Your task to perform on an android device: create a new album in the google photos Image 0: 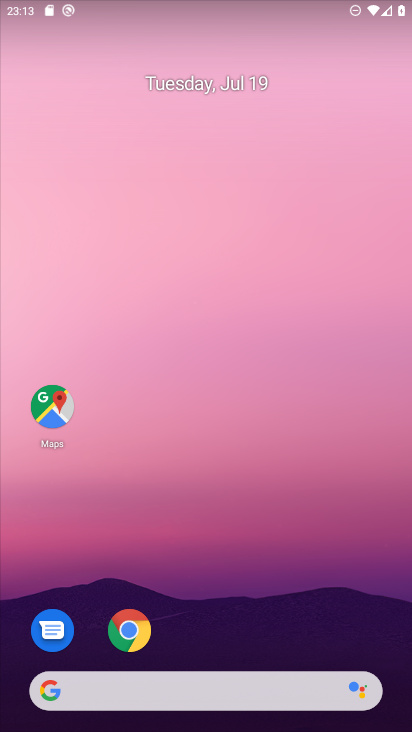
Step 0: drag from (184, 644) to (134, 168)
Your task to perform on an android device: create a new album in the google photos Image 1: 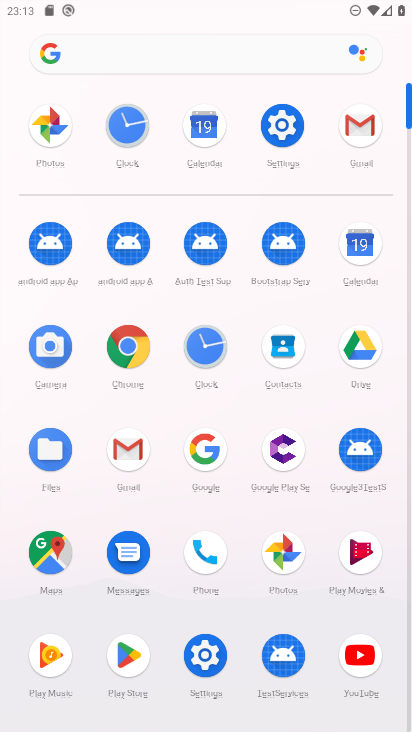
Step 1: click (54, 123)
Your task to perform on an android device: create a new album in the google photos Image 2: 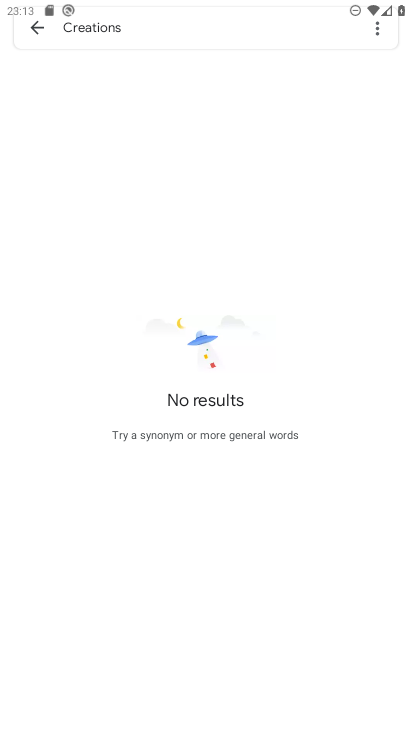
Step 2: click (30, 19)
Your task to perform on an android device: create a new album in the google photos Image 3: 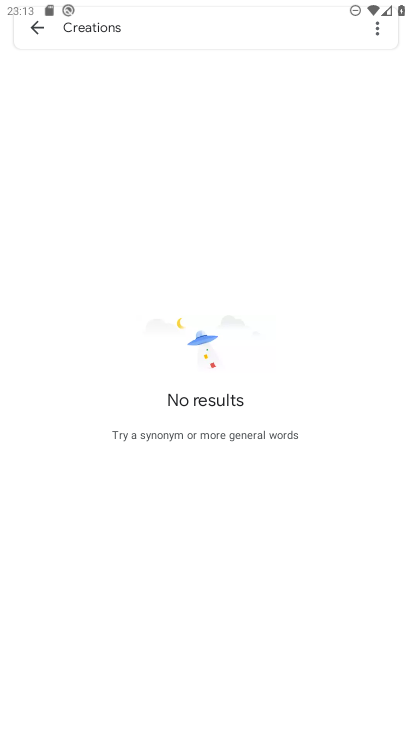
Step 3: click (31, 17)
Your task to perform on an android device: create a new album in the google photos Image 4: 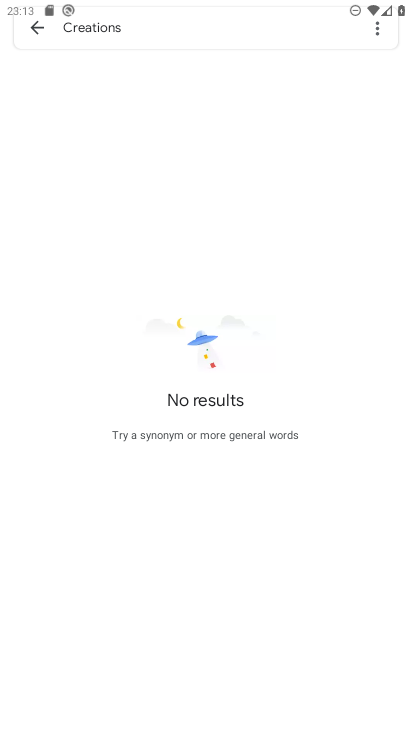
Step 4: click (33, 23)
Your task to perform on an android device: create a new album in the google photos Image 5: 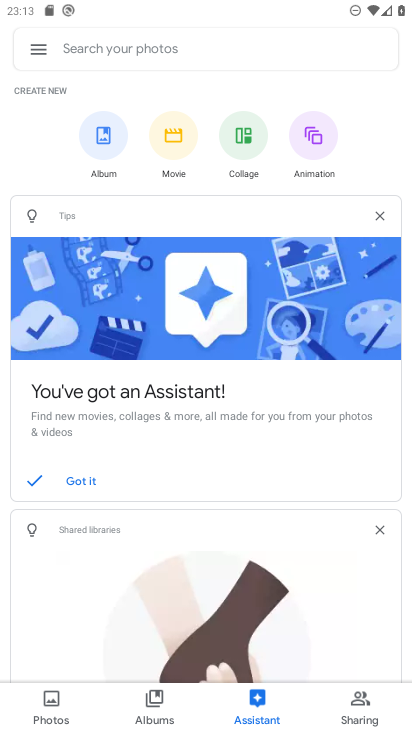
Step 5: click (53, 700)
Your task to perform on an android device: create a new album in the google photos Image 6: 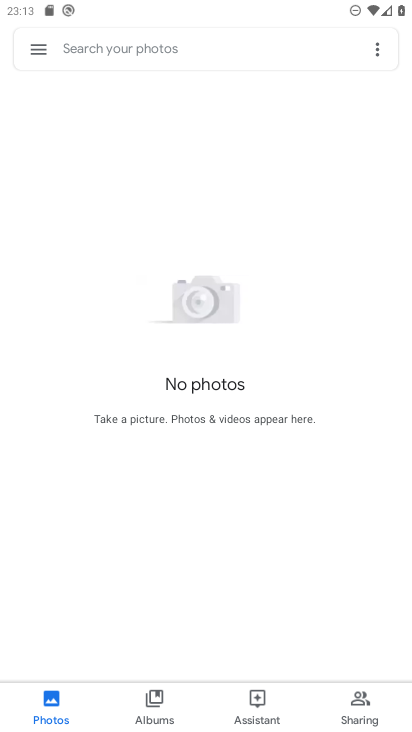
Step 6: click (372, 57)
Your task to perform on an android device: create a new album in the google photos Image 7: 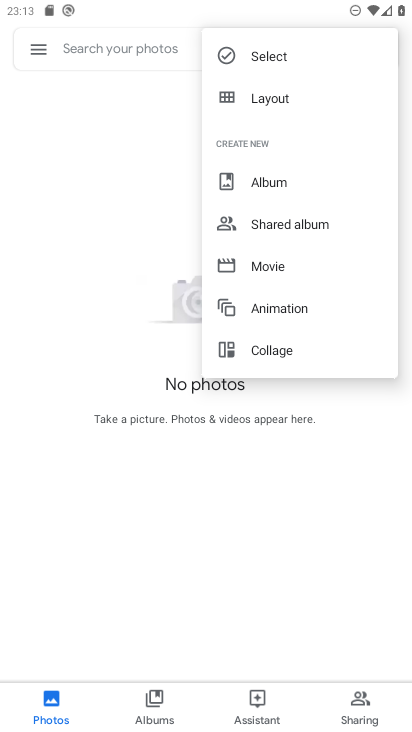
Step 7: click (288, 175)
Your task to perform on an android device: create a new album in the google photos Image 8: 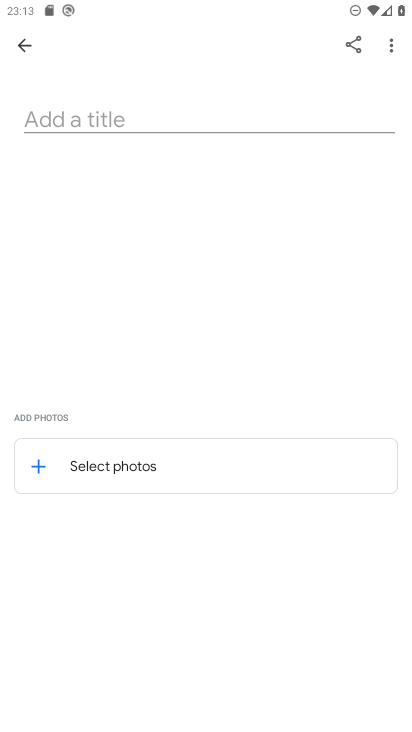
Step 8: click (68, 118)
Your task to perform on an android device: create a new album in the google photos Image 9: 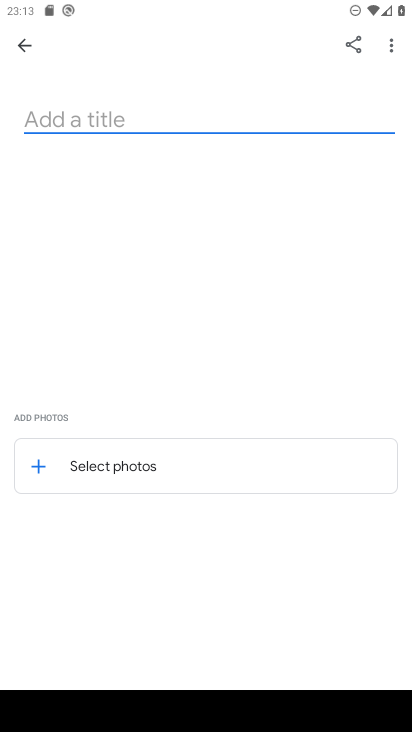
Step 9: type "ggngng"
Your task to perform on an android device: create a new album in the google photos Image 10: 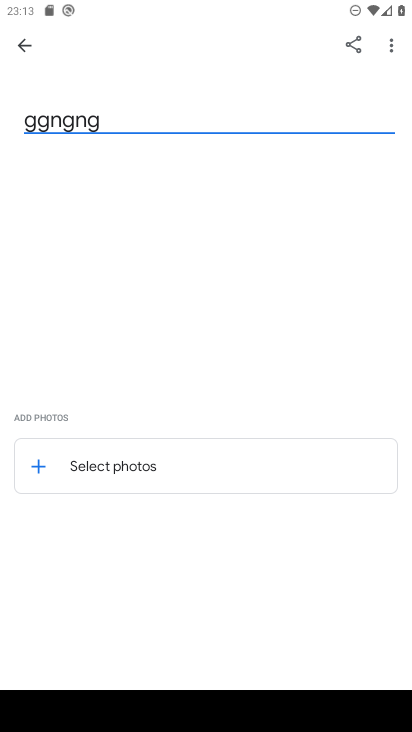
Step 10: click (35, 469)
Your task to perform on an android device: create a new album in the google photos Image 11: 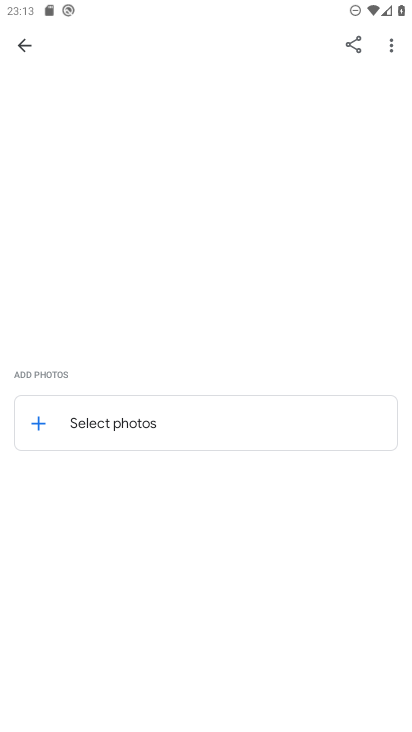
Step 11: click (36, 432)
Your task to perform on an android device: create a new album in the google photos Image 12: 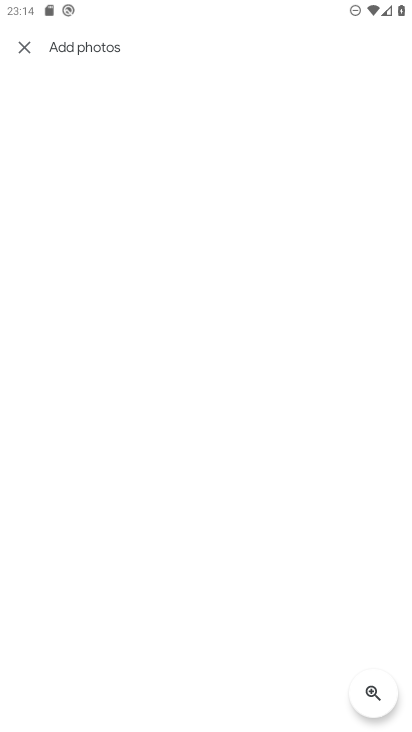
Step 12: click (19, 55)
Your task to perform on an android device: create a new album in the google photos Image 13: 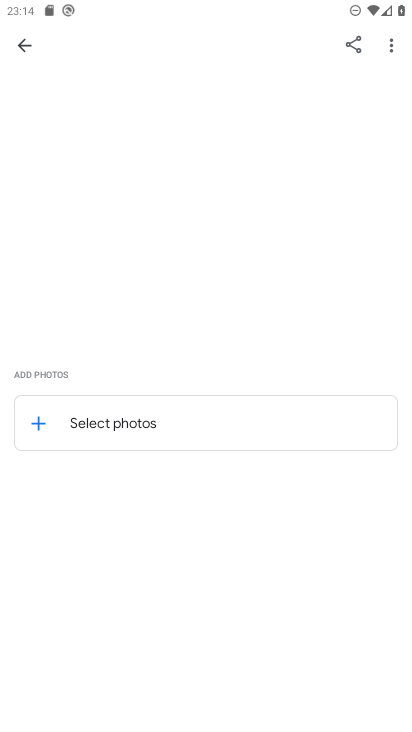
Step 13: task complete